Your task to perform on an android device: search for starred emails in the gmail app Image 0: 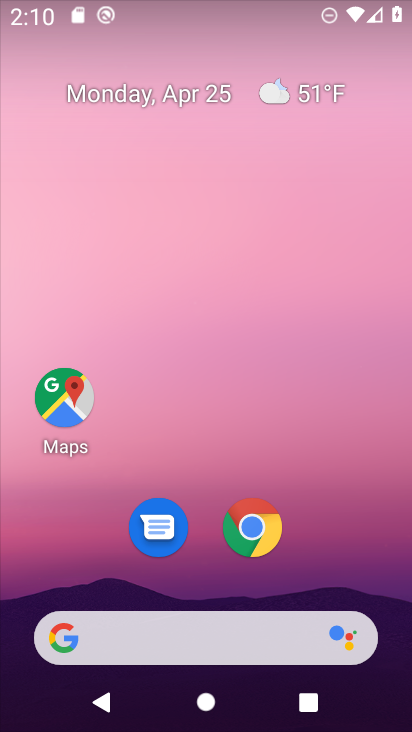
Step 0: drag from (343, 547) to (207, 39)
Your task to perform on an android device: search for starred emails in the gmail app Image 1: 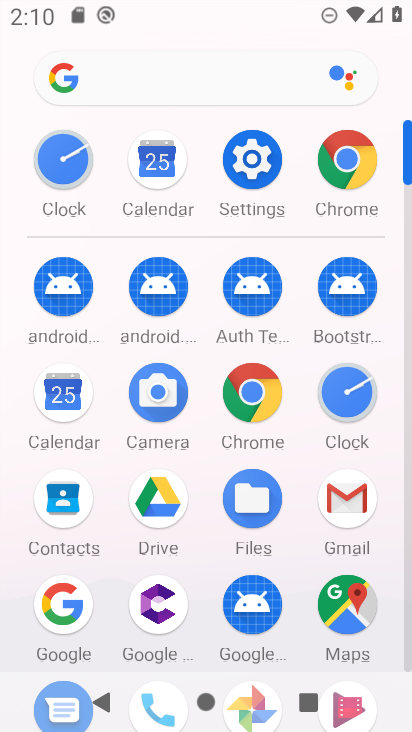
Step 1: drag from (11, 572) to (18, 279)
Your task to perform on an android device: search for starred emails in the gmail app Image 2: 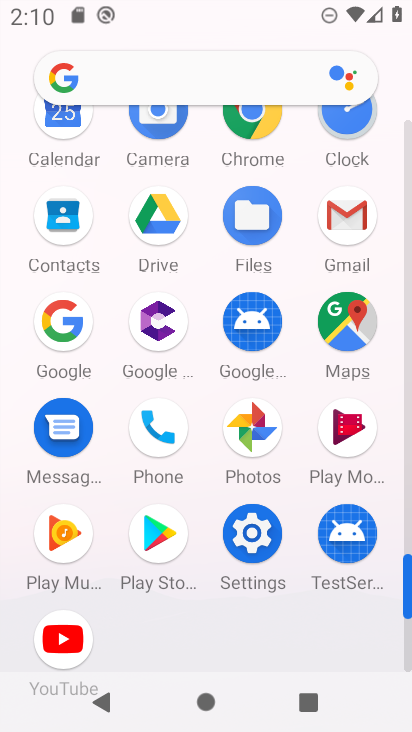
Step 2: click (344, 209)
Your task to perform on an android device: search for starred emails in the gmail app Image 3: 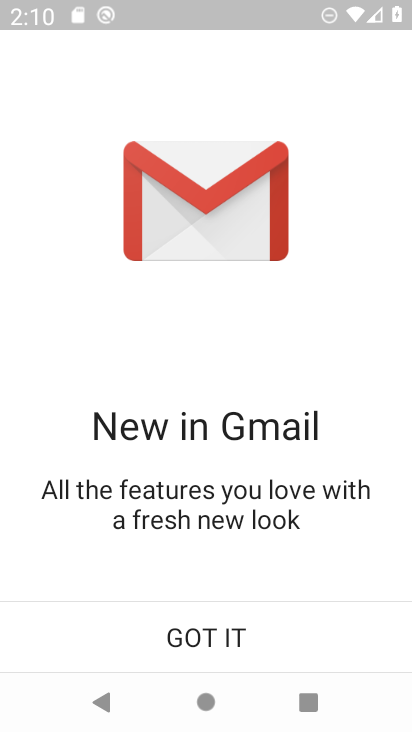
Step 3: click (217, 621)
Your task to perform on an android device: search for starred emails in the gmail app Image 4: 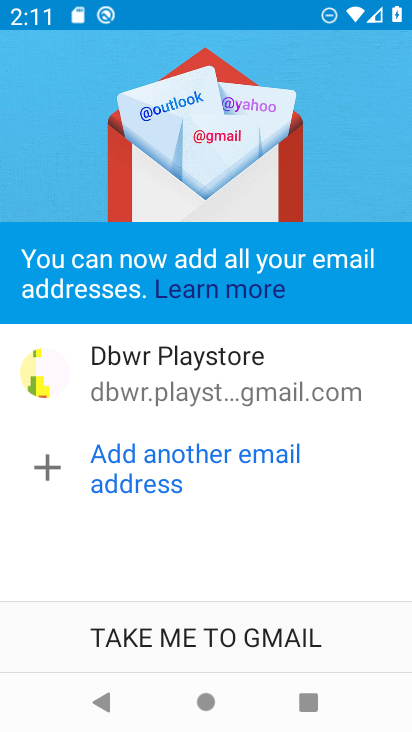
Step 4: click (274, 616)
Your task to perform on an android device: search for starred emails in the gmail app Image 5: 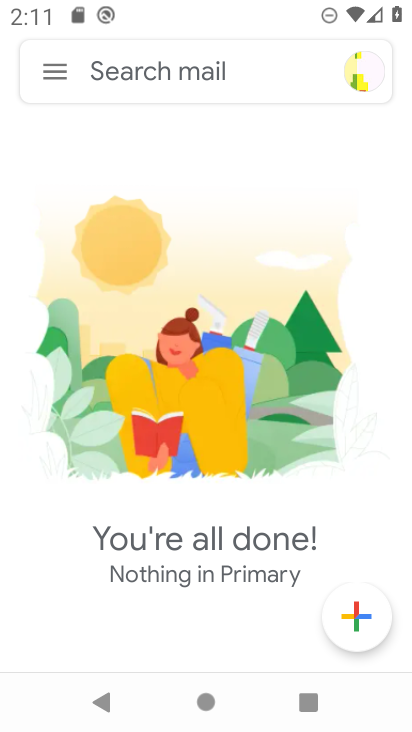
Step 5: click (58, 73)
Your task to perform on an android device: search for starred emails in the gmail app Image 6: 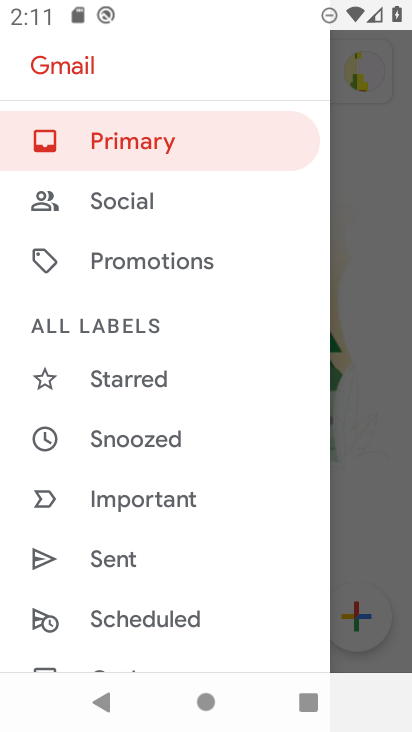
Step 6: drag from (193, 537) to (187, 373)
Your task to perform on an android device: search for starred emails in the gmail app Image 7: 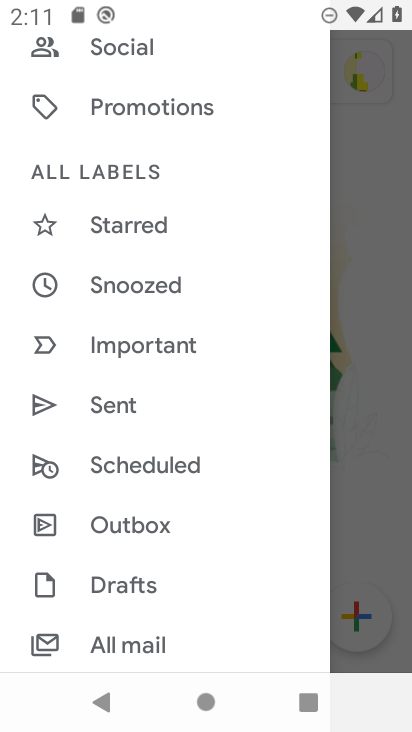
Step 7: click (139, 228)
Your task to perform on an android device: search for starred emails in the gmail app Image 8: 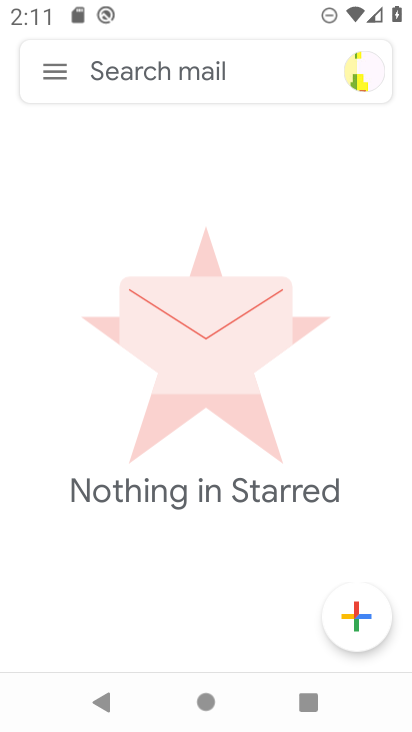
Step 8: task complete